Your task to perform on an android device: toggle priority inbox in the gmail app Image 0: 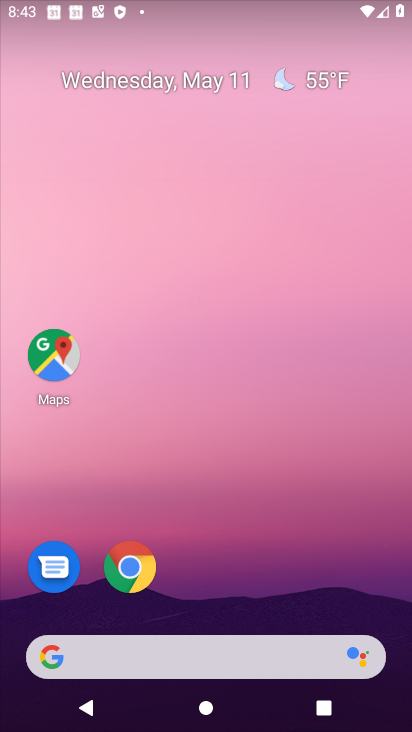
Step 0: drag from (192, 587) to (325, 17)
Your task to perform on an android device: toggle priority inbox in the gmail app Image 1: 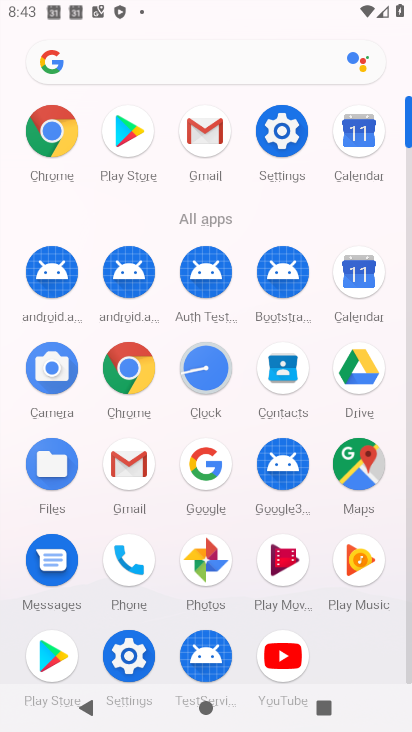
Step 1: click (130, 469)
Your task to perform on an android device: toggle priority inbox in the gmail app Image 2: 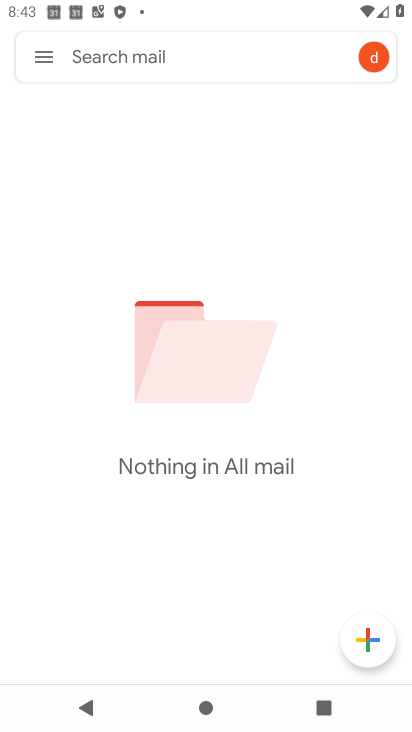
Step 2: click (46, 60)
Your task to perform on an android device: toggle priority inbox in the gmail app Image 3: 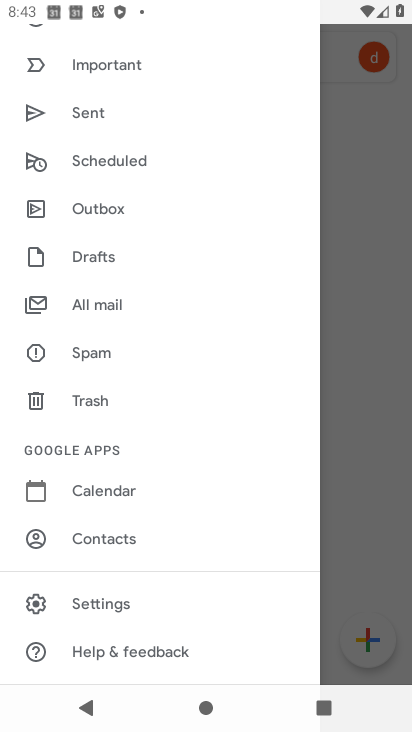
Step 3: click (113, 611)
Your task to perform on an android device: toggle priority inbox in the gmail app Image 4: 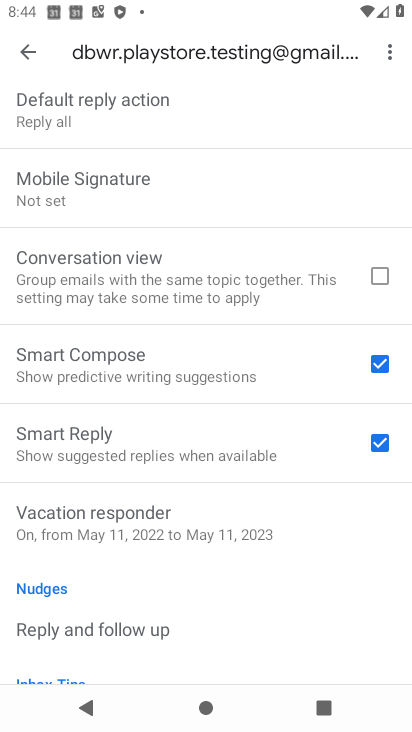
Step 4: drag from (160, 535) to (126, 727)
Your task to perform on an android device: toggle priority inbox in the gmail app Image 5: 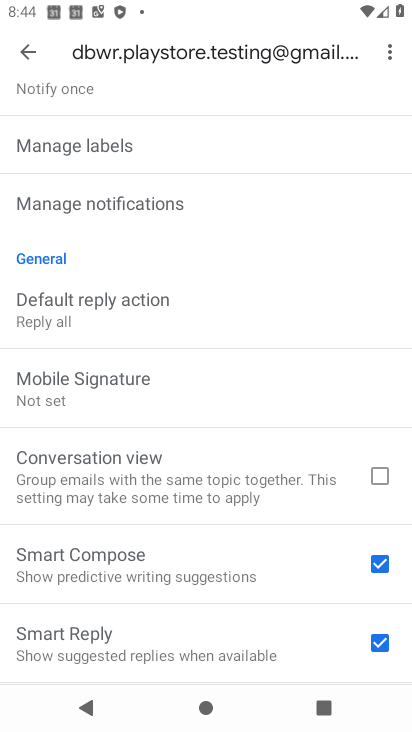
Step 5: drag from (165, 299) to (142, 721)
Your task to perform on an android device: toggle priority inbox in the gmail app Image 6: 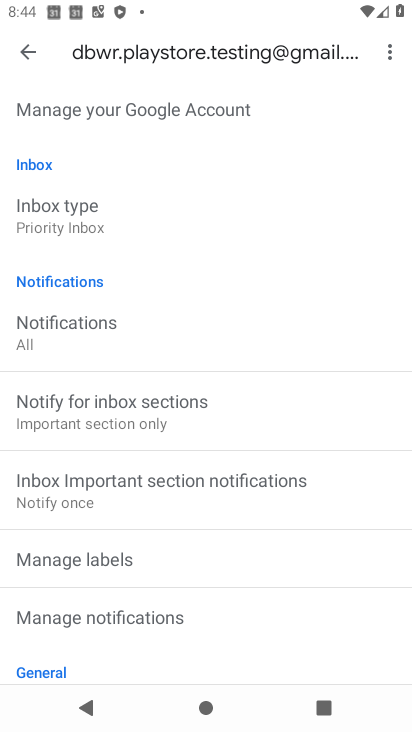
Step 6: click (94, 215)
Your task to perform on an android device: toggle priority inbox in the gmail app Image 7: 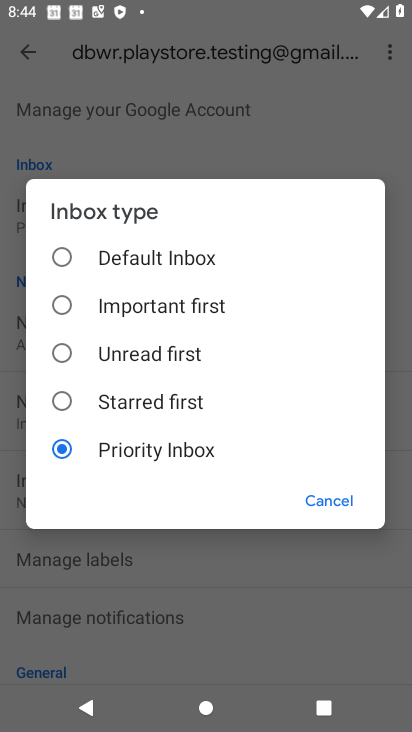
Step 7: click (115, 242)
Your task to perform on an android device: toggle priority inbox in the gmail app Image 8: 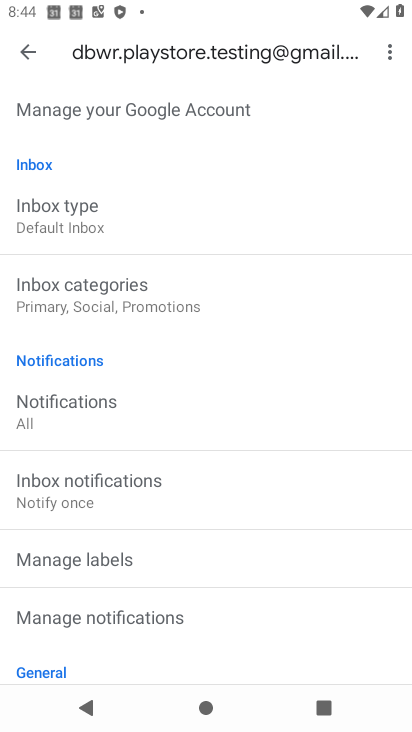
Step 8: task complete